Your task to perform on an android device: Open calendar and show me the fourth week of next month Image 0: 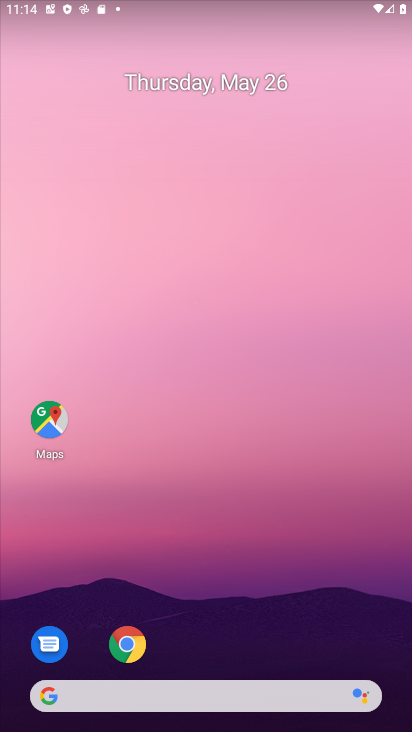
Step 0: drag from (321, 485) to (239, 54)
Your task to perform on an android device: Open calendar and show me the fourth week of next month Image 1: 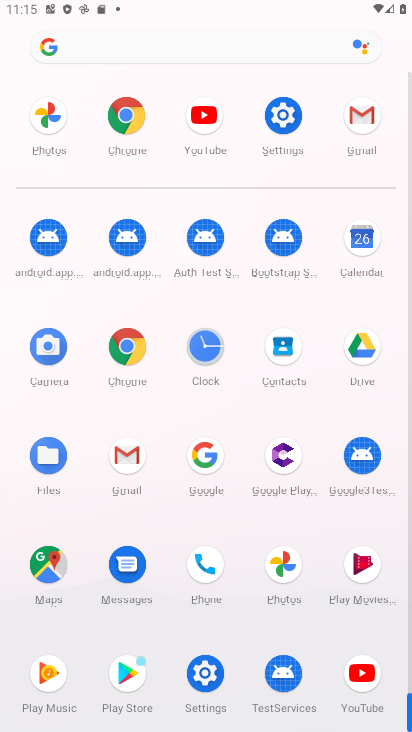
Step 1: click (371, 240)
Your task to perform on an android device: Open calendar and show me the fourth week of next month Image 2: 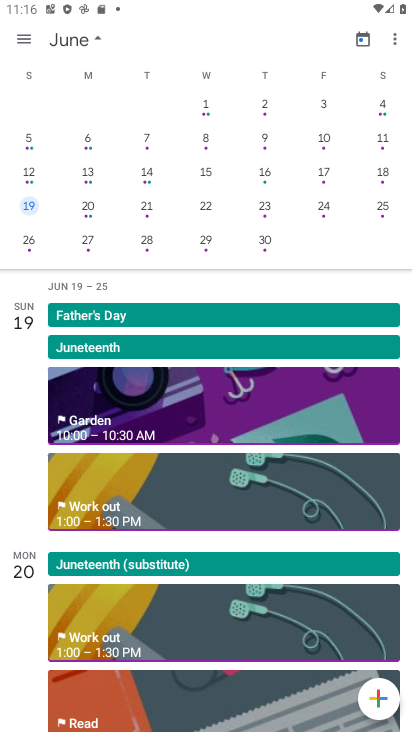
Step 2: click (72, 47)
Your task to perform on an android device: Open calendar and show me the fourth week of next month Image 3: 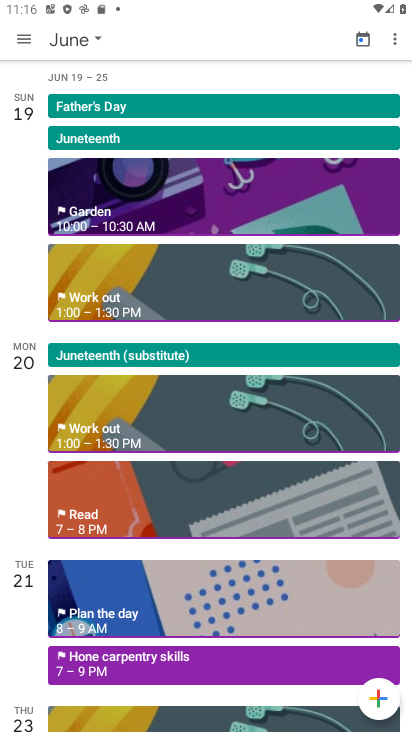
Step 3: click (84, 39)
Your task to perform on an android device: Open calendar and show me the fourth week of next month Image 4: 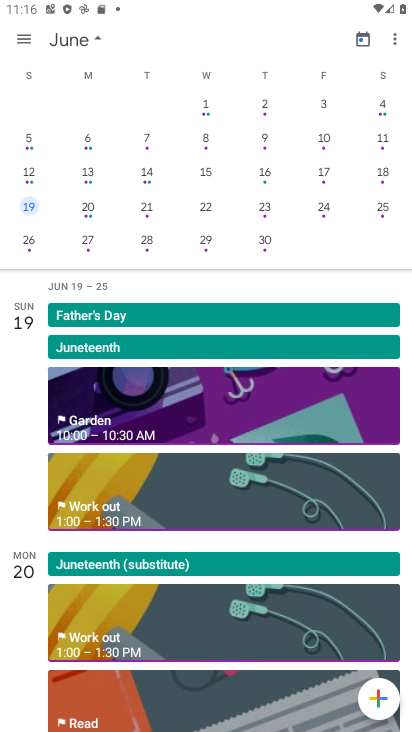
Step 4: drag from (328, 171) to (15, 158)
Your task to perform on an android device: Open calendar and show me the fourth week of next month Image 5: 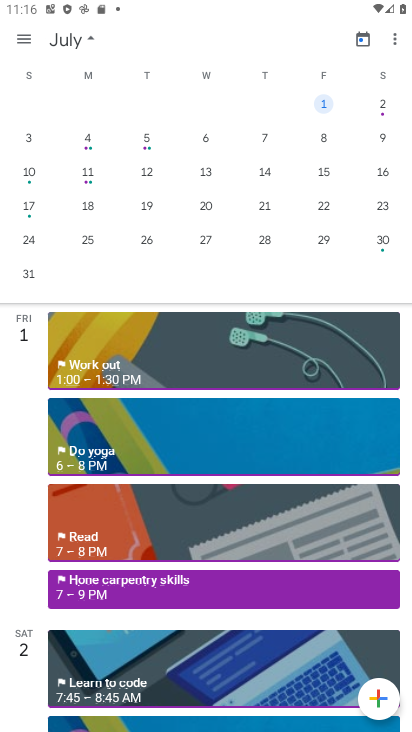
Step 5: click (381, 243)
Your task to perform on an android device: Open calendar and show me the fourth week of next month Image 6: 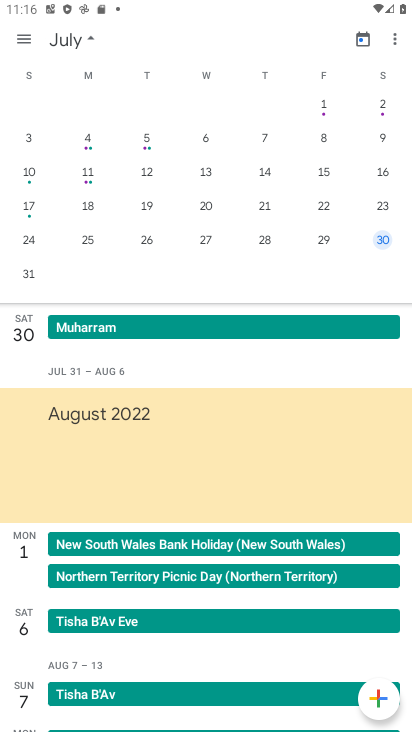
Step 6: task complete